Your task to perform on an android device: Open Wikipedia Image 0: 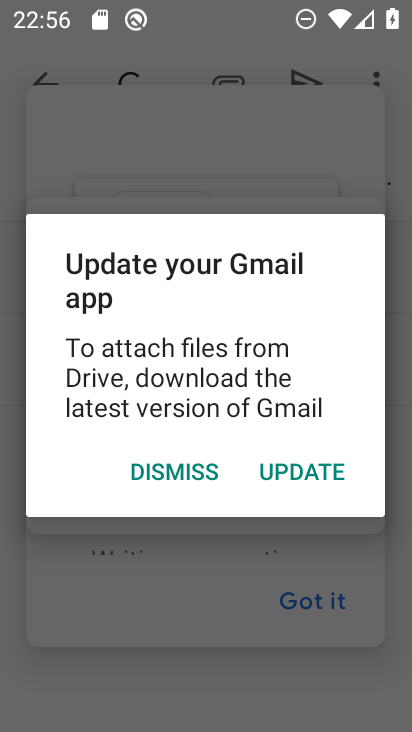
Step 0: press home button
Your task to perform on an android device: Open Wikipedia Image 1: 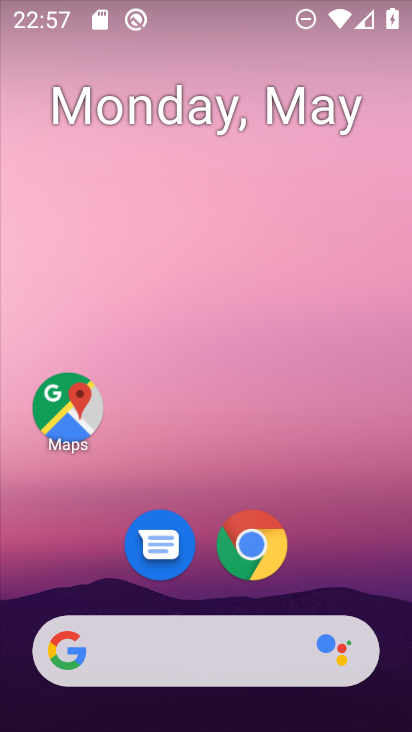
Step 1: click (252, 542)
Your task to perform on an android device: Open Wikipedia Image 2: 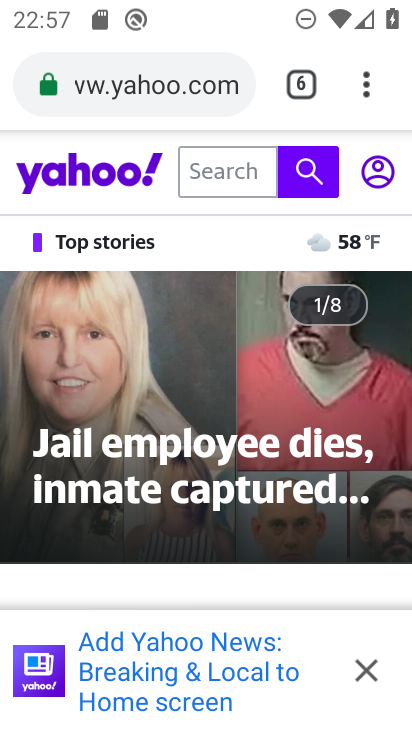
Step 2: click (368, 77)
Your task to perform on an android device: Open Wikipedia Image 3: 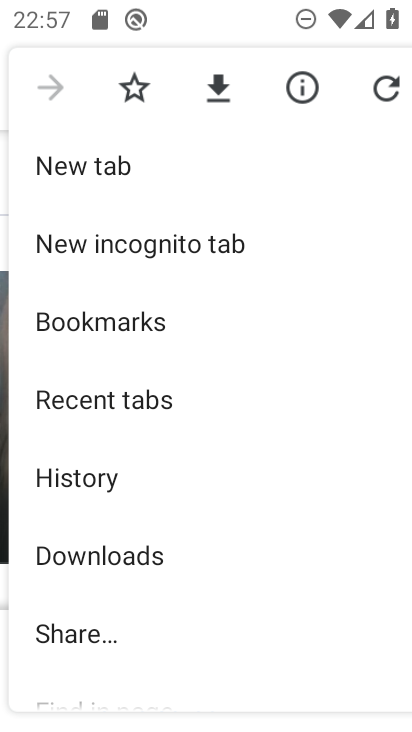
Step 3: click (84, 162)
Your task to perform on an android device: Open Wikipedia Image 4: 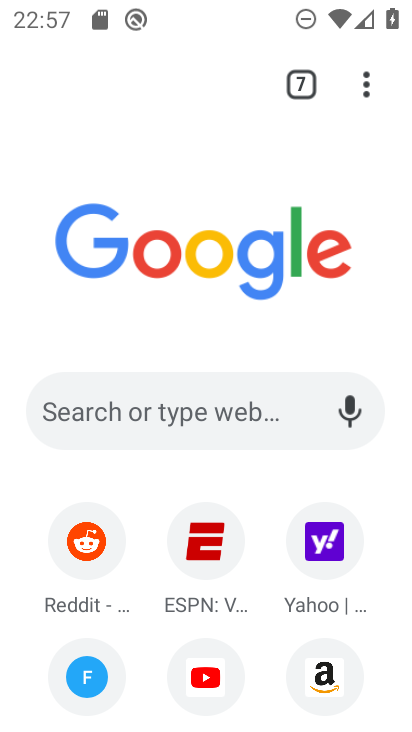
Step 4: click (139, 403)
Your task to perform on an android device: Open Wikipedia Image 5: 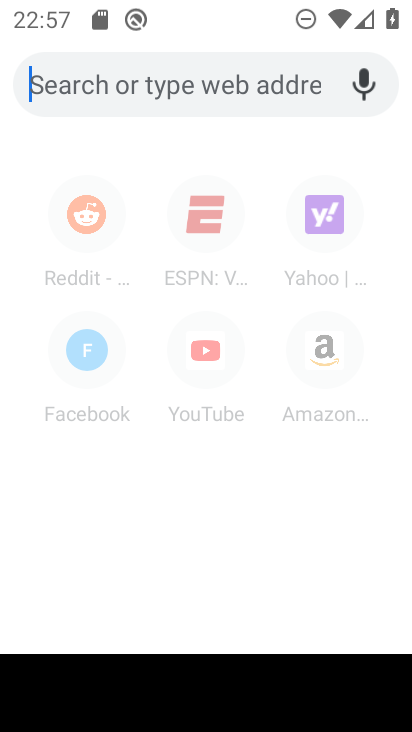
Step 5: type "wikipedia"
Your task to perform on an android device: Open Wikipedia Image 6: 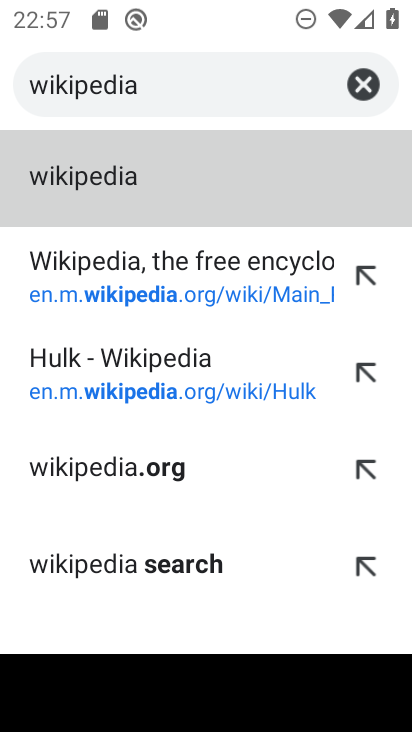
Step 6: click (100, 169)
Your task to perform on an android device: Open Wikipedia Image 7: 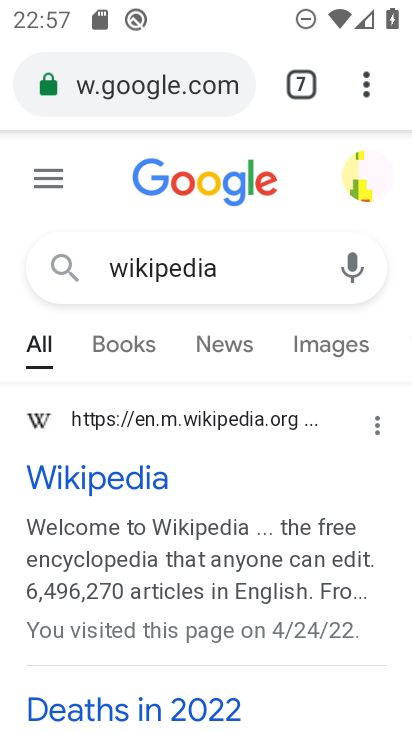
Step 7: task complete